Your task to perform on an android device: open app "Yahoo Mail" (install if not already installed) and enter user name: "lawsuit@inbox.com" and password: "pooch" Image 0: 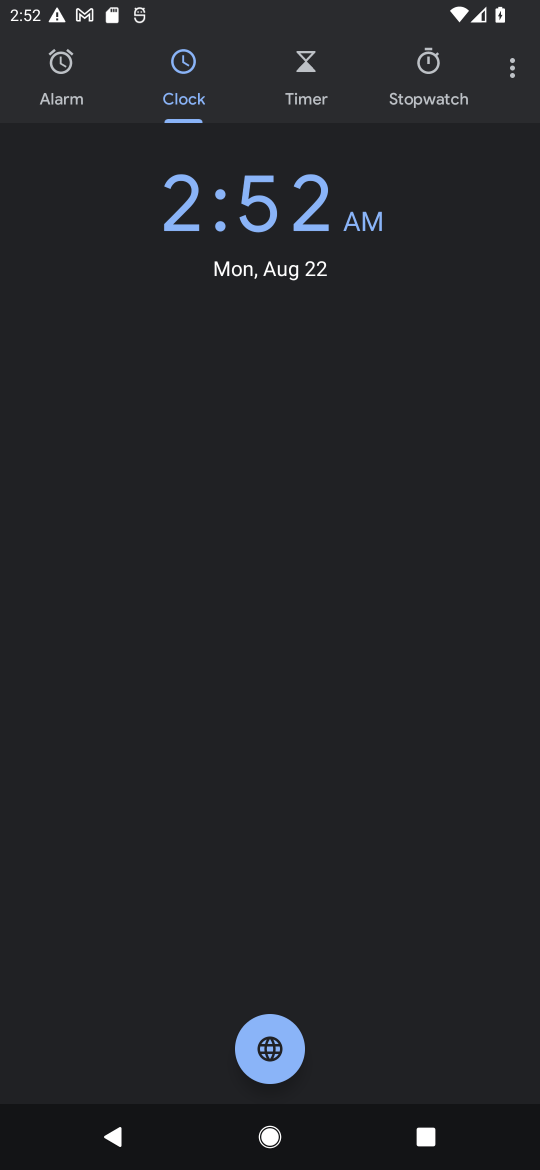
Step 0: press home button
Your task to perform on an android device: open app "Yahoo Mail" (install if not already installed) and enter user name: "lawsuit@inbox.com" and password: "pooch" Image 1: 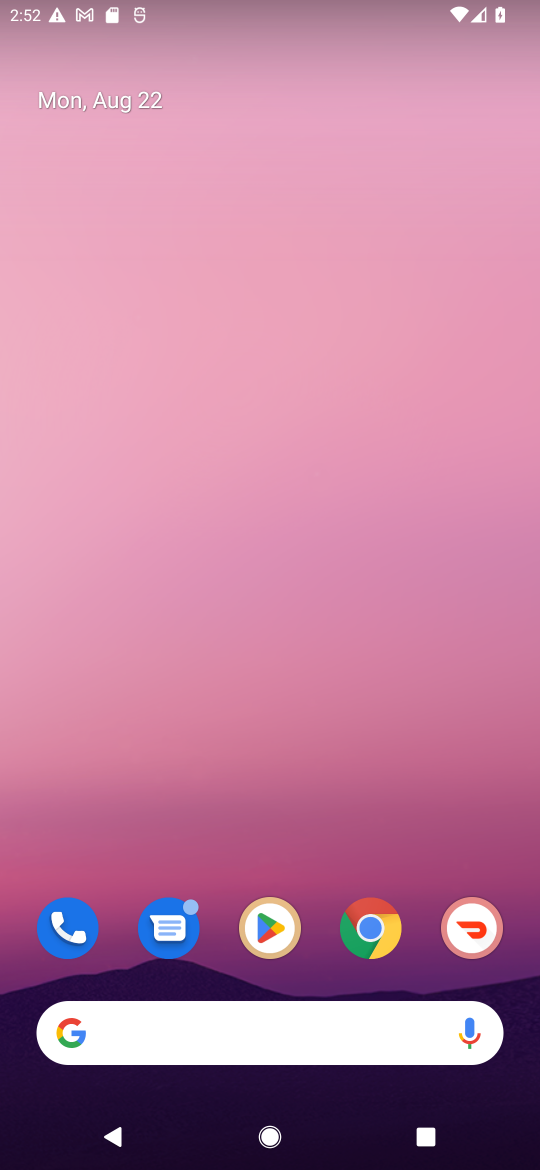
Step 1: click (265, 938)
Your task to perform on an android device: open app "Yahoo Mail" (install if not already installed) and enter user name: "lawsuit@inbox.com" and password: "pooch" Image 2: 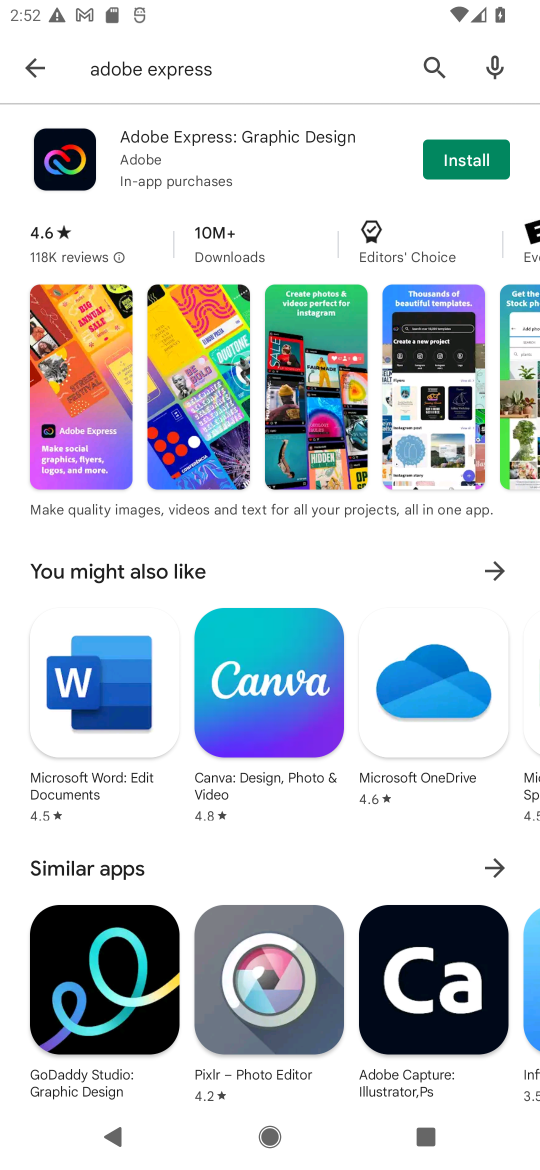
Step 2: click (216, 65)
Your task to perform on an android device: open app "Yahoo Mail" (install if not already installed) and enter user name: "lawsuit@inbox.com" and password: "pooch" Image 3: 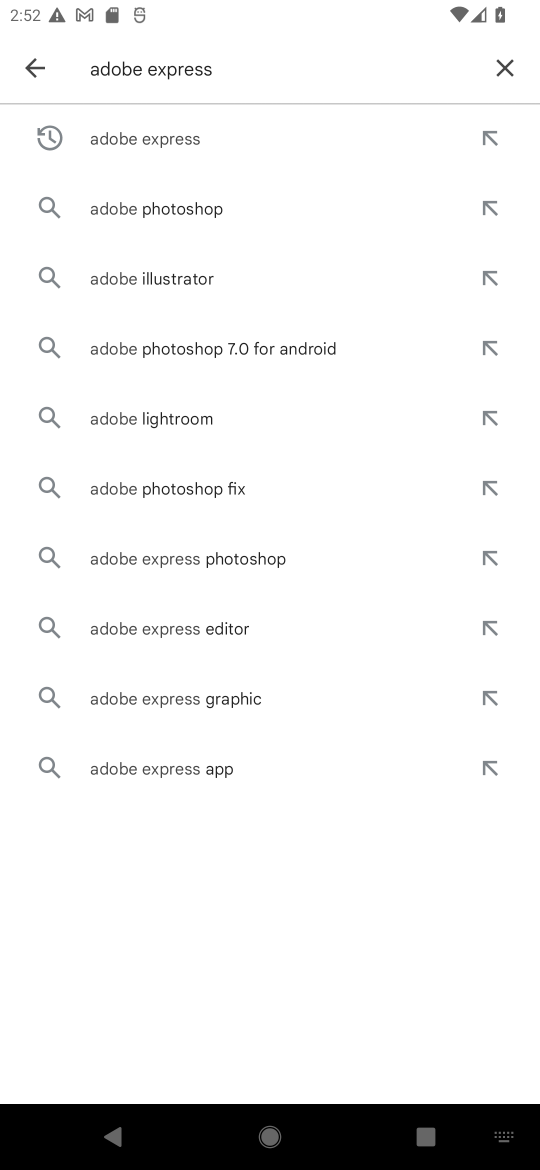
Step 3: click (506, 59)
Your task to perform on an android device: open app "Yahoo Mail" (install if not already installed) and enter user name: "lawsuit@inbox.com" and password: "pooch" Image 4: 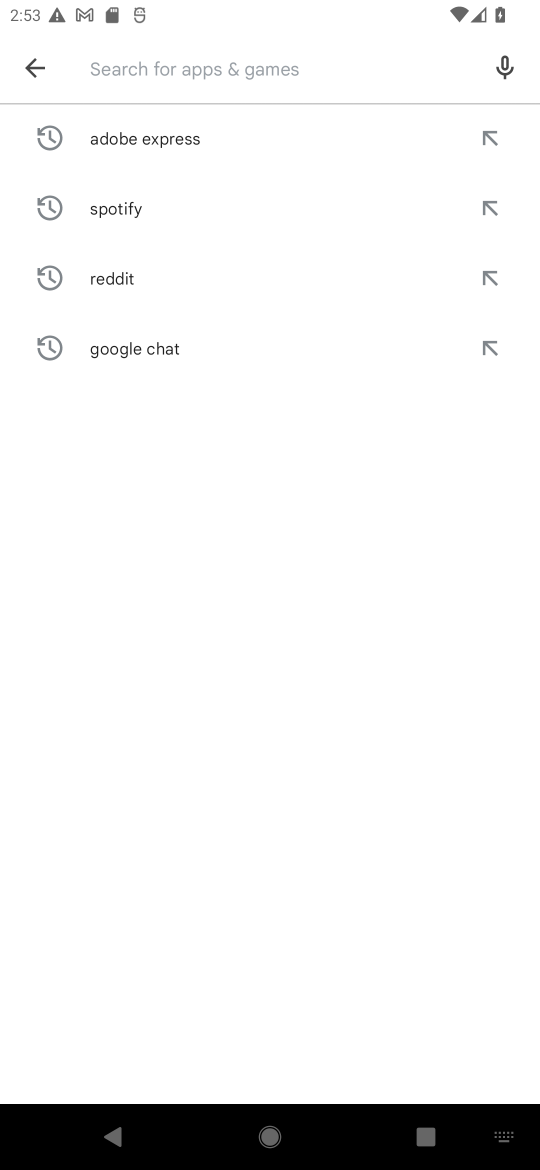
Step 4: type "Yahoo Maiil"
Your task to perform on an android device: open app "Yahoo Mail" (install if not already installed) and enter user name: "lawsuit@inbox.com" and password: "pooch" Image 5: 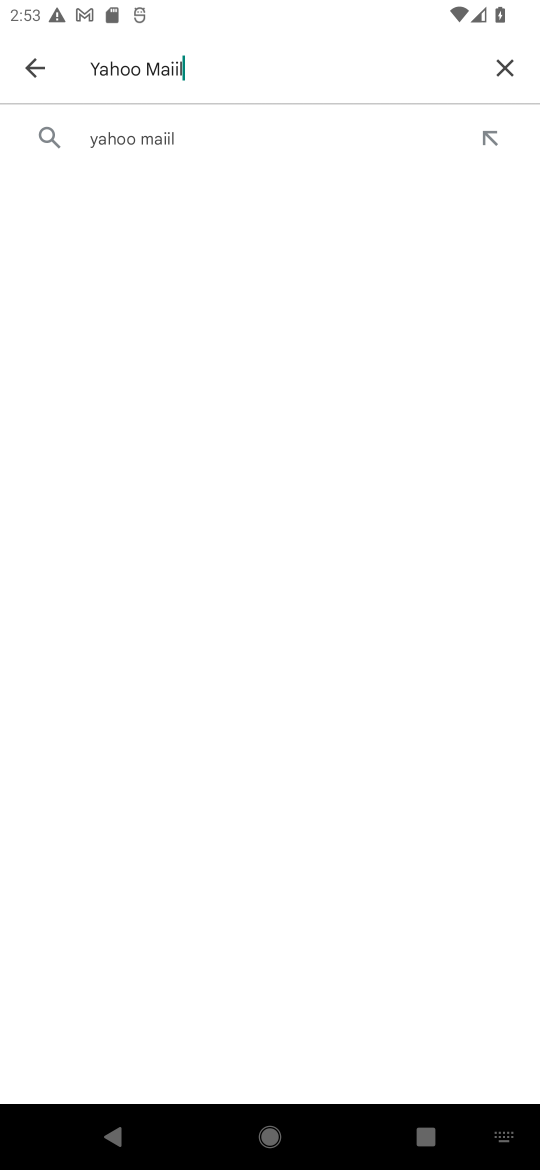
Step 5: click (174, 145)
Your task to perform on an android device: open app "Yahoo Mail" (install if not already installed) and enter user name: "lawsuit@inbox.com" and password: "pooch" Image 6: 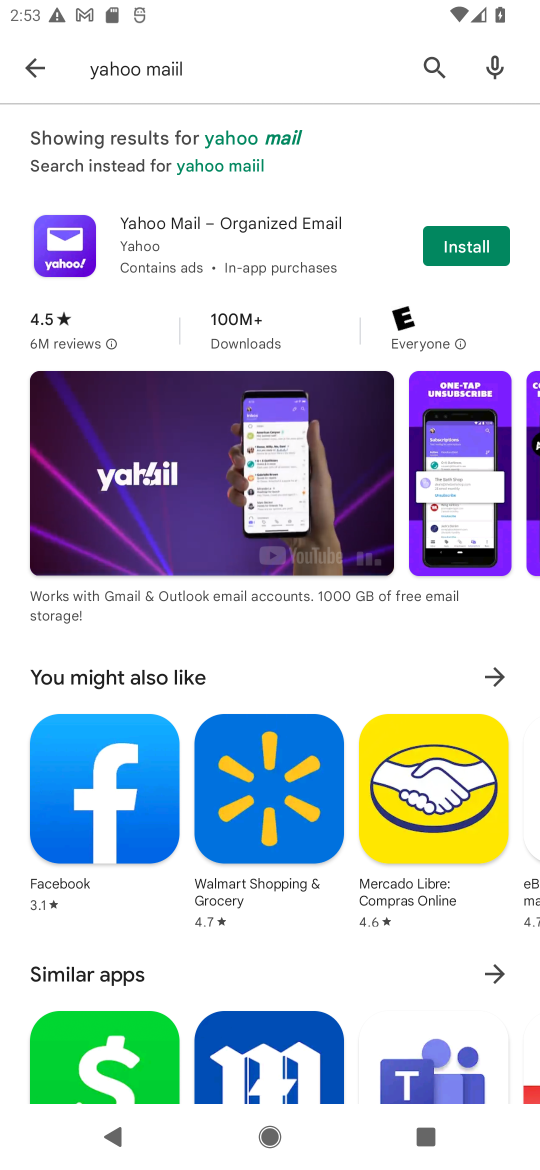
Step 6: click (471, 241)
Your task to perform on an android device: open app "Yahoo Mail" (install if not already installed) and enter user name: "lawsuit@inbox.com" and password: "pooch" Image 7: 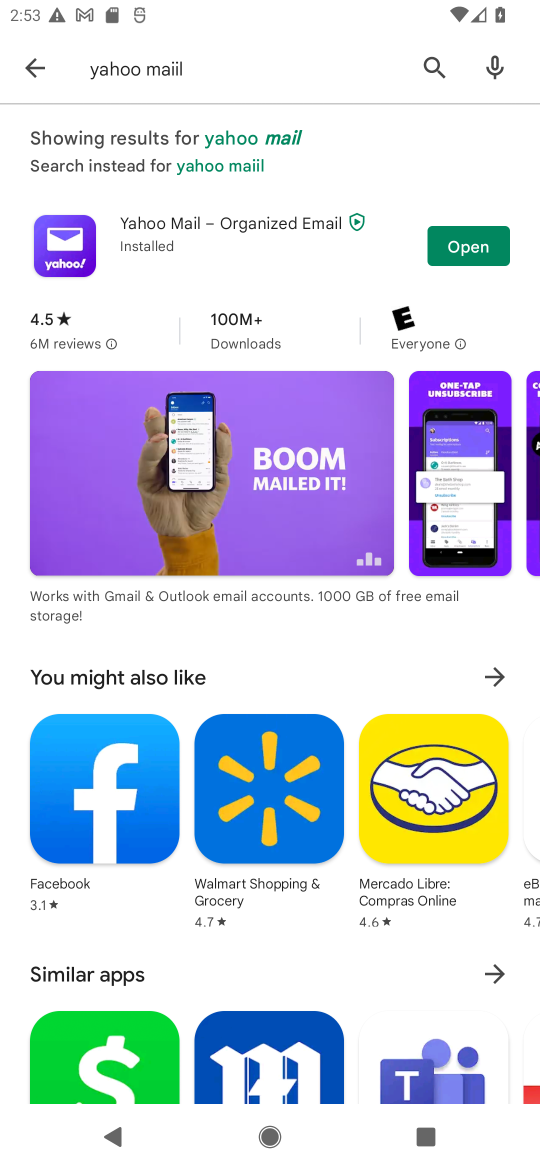
Step 7: click (465, 242)
Your task to perform on an android device: open app "Yahoo Mail" (install if not already installed) and enter user name: "lawsuit@inbox.com" and password: "pooch" Image 8: 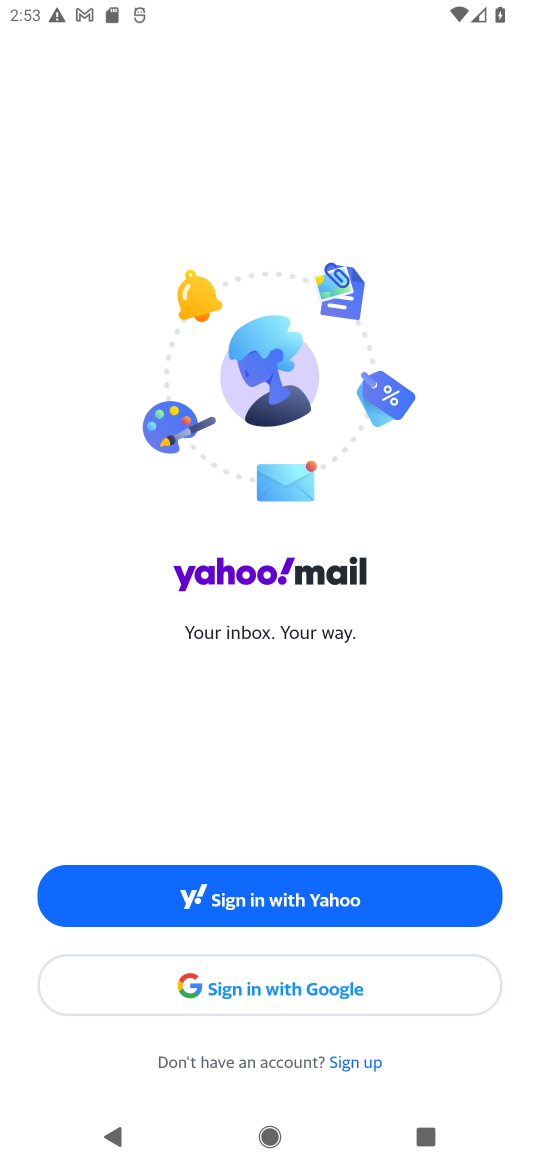
Step 8: click (343, 1070)
Your task to perform on an android device: open app "Yahoo Mail" (install if not already installed) and enter user name: "lawsuit@inbox.com" and password: "pooch" Image 9: 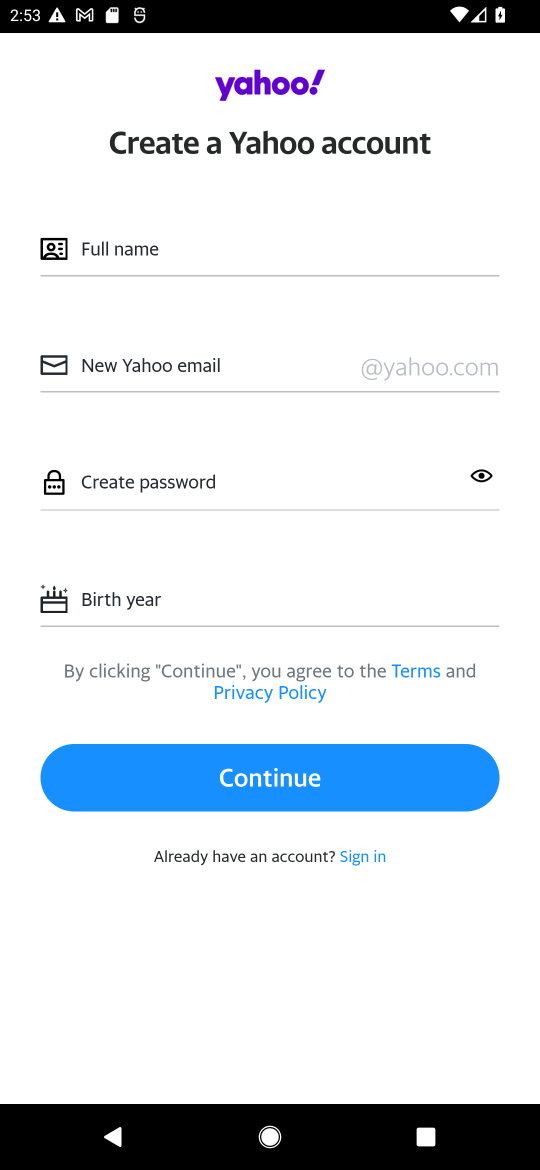
Step 9: click (366, 859)
Your task to perform on an android device: open app "Yahoo Mail" (install if not already installed) and enter user name: "lawsuit@inbox.com" and password: "pooch" Image 10: 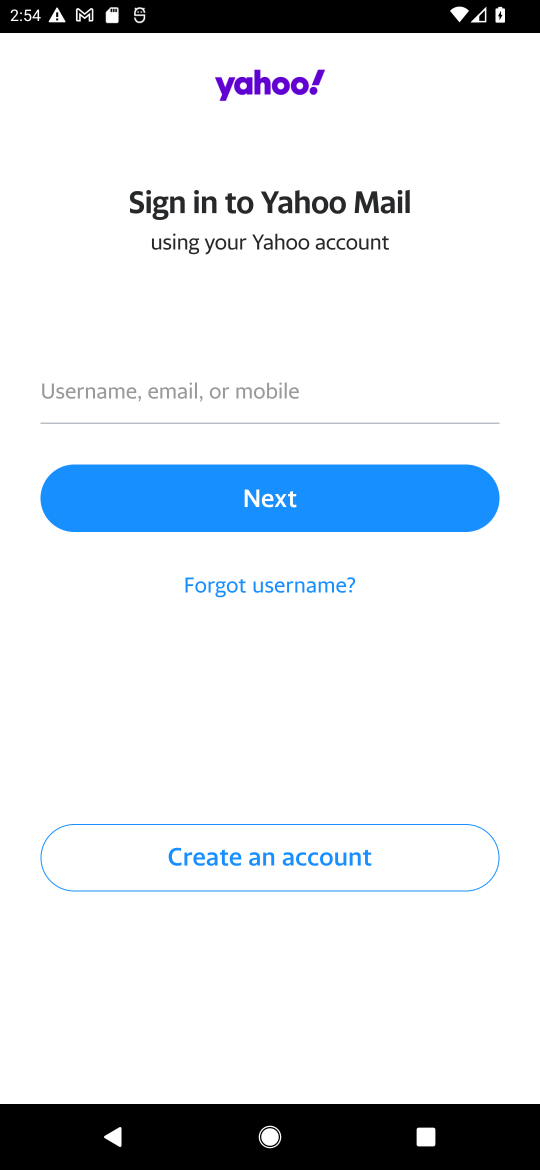
Step 10: click (258, 393)
Your task to perform on an android device: open app "Yahoo Mail" (install if not already installed) and enter user name: "lawsuit@inbox.com" and password: "pooch" Image 11: 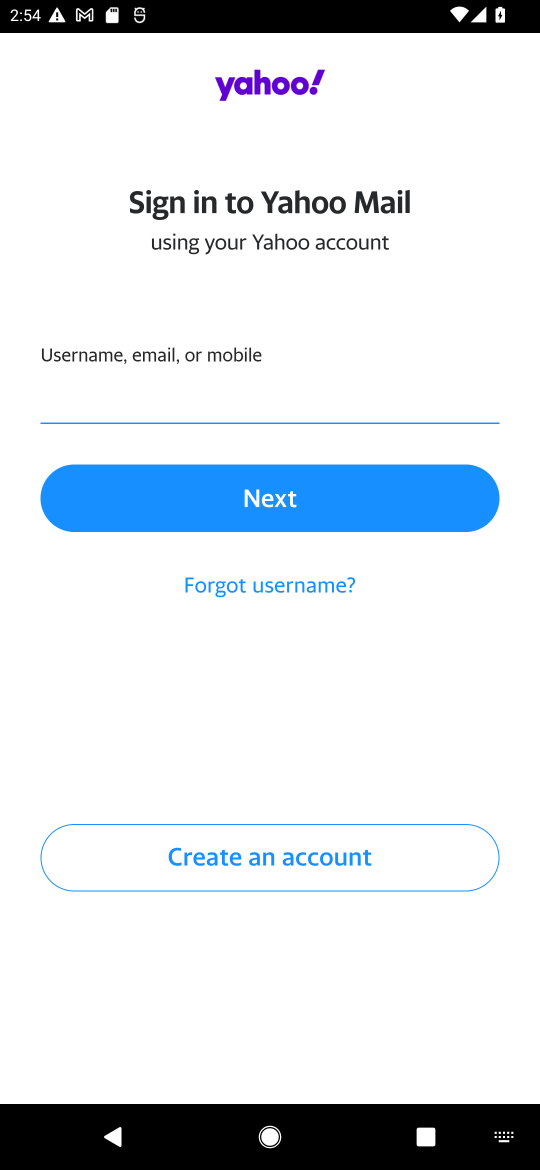
Step 11: type "lawsuit@inbox.com"
Your task to perform on an android device: open app "Yahoo Mail" (install if not already installed) and enter user name: "lawsuit@inbox.com" and password: "pooch" Image 12: 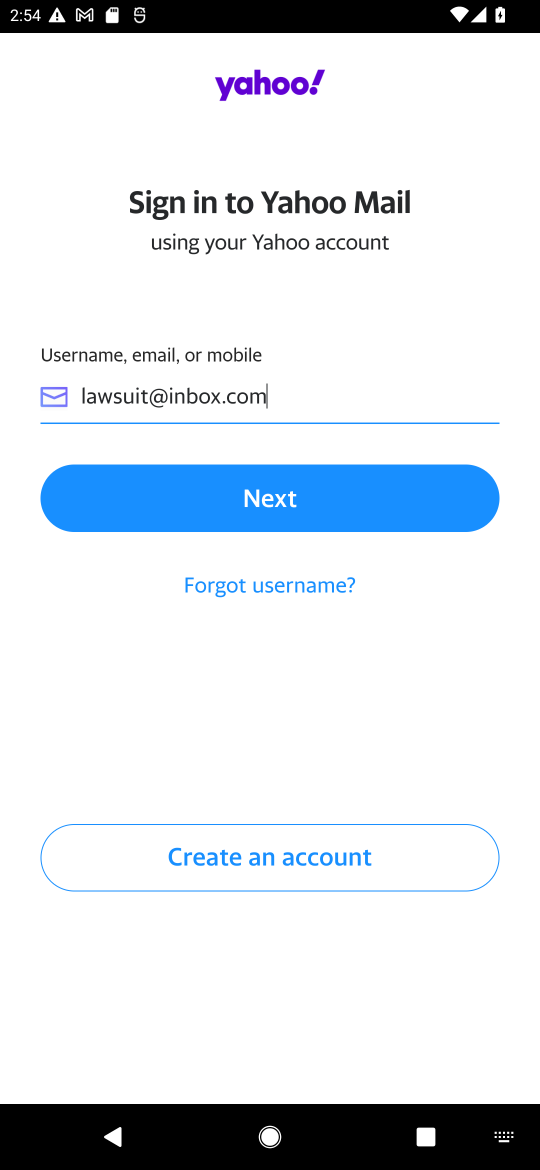
Step 12: click (328, 506)
Your task to perform on an android device: open app "Yahoo Mail" (install if not already installed) and enter user name: "lawsuit@inbox.com" and password: "pooch" Image 13: 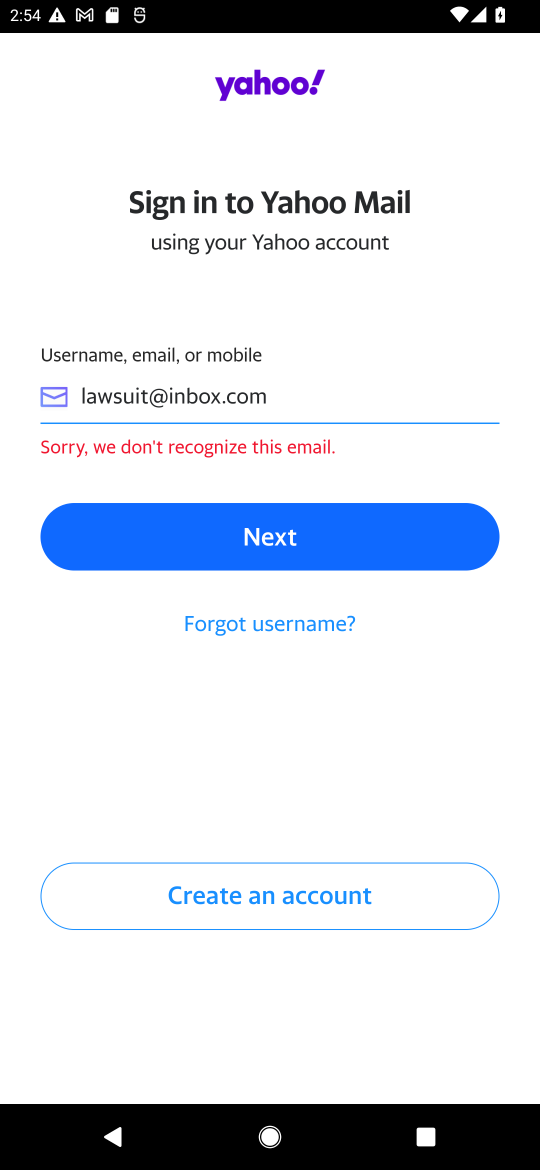
Step 13: click (433, 525)
Your task to perform on an android device: open app "Yahoo Mail" (install if not already installed) and enter user name: "lawsuit@inbox.com" and password: "pooch" Image 14: 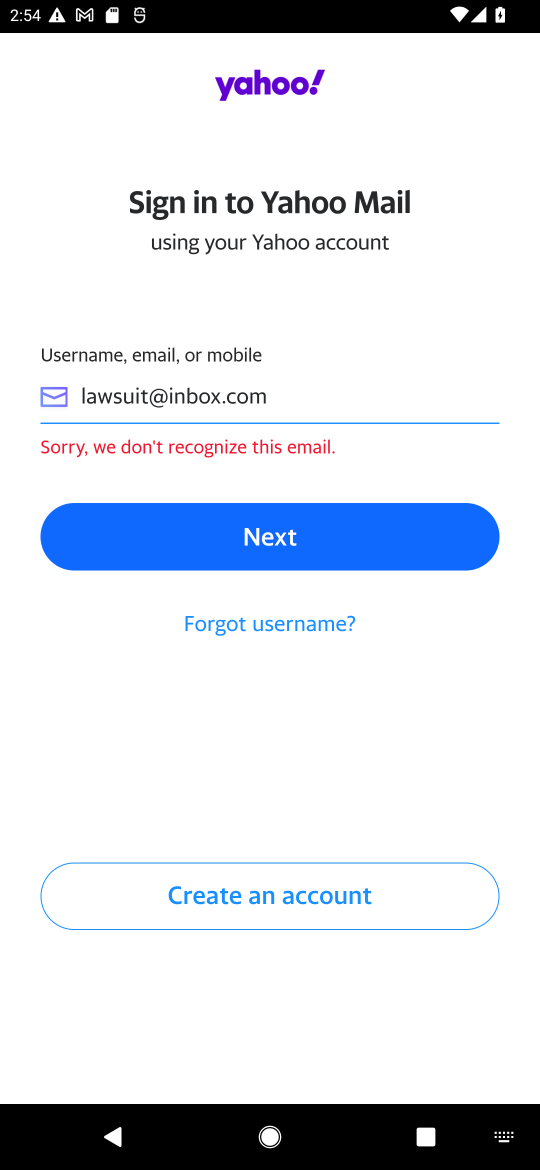
Step 14: task complete